Your task to perform on an android device: Open my contact list Image 0: 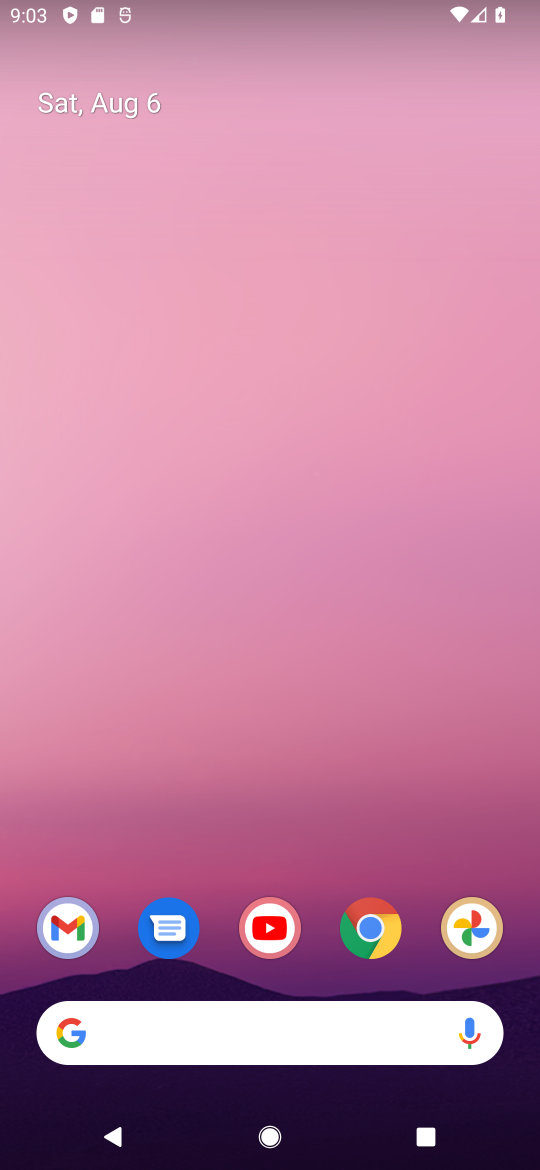
Step 0: click (268, 0)
Your task to perform on an android device: Open my contact list Image 1: 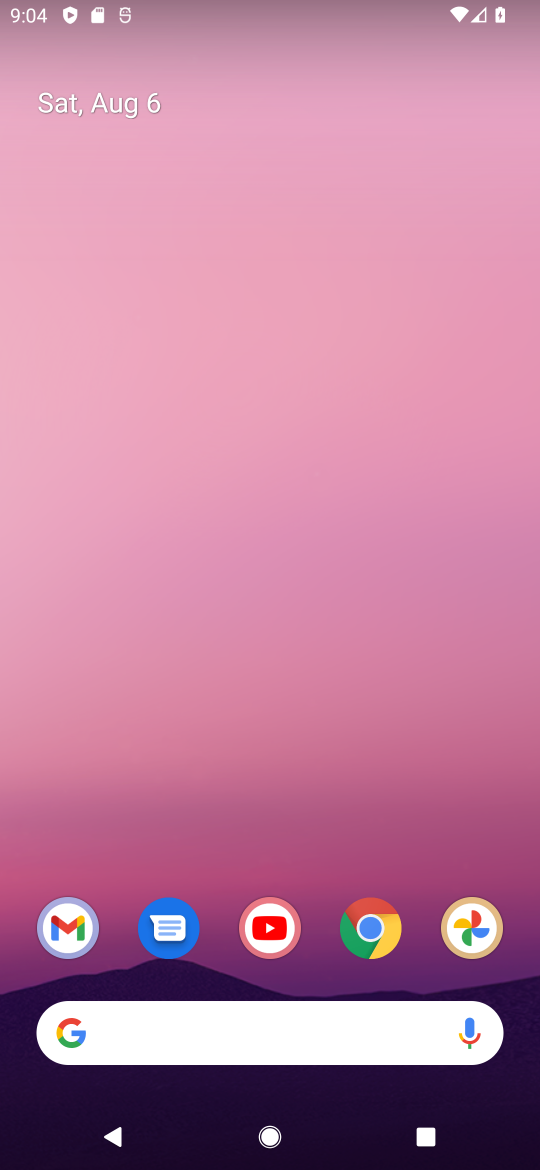
Step 1: drag from (222, 822) to (226, 98)
Your task to perform on an android device: Open my contact list Image 2: 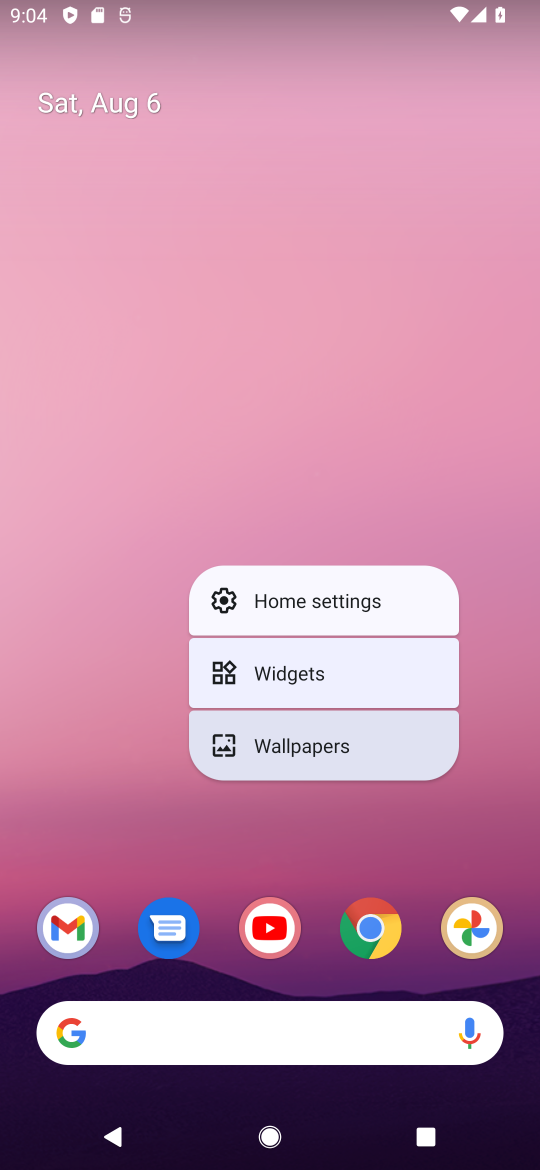
Step 2: click (122, 713)
Your task to perform on an android device: Open my contact list Image 3: 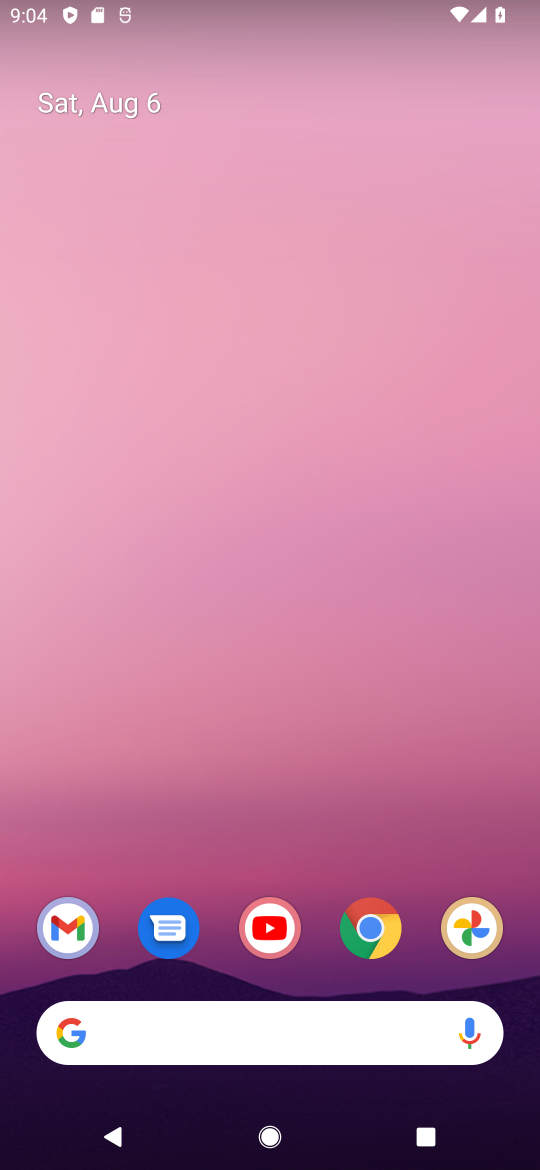
Step 3: drag from (279, 830) to (279, 123)
Your task to perform on an android device: Open my contact list Image 4: 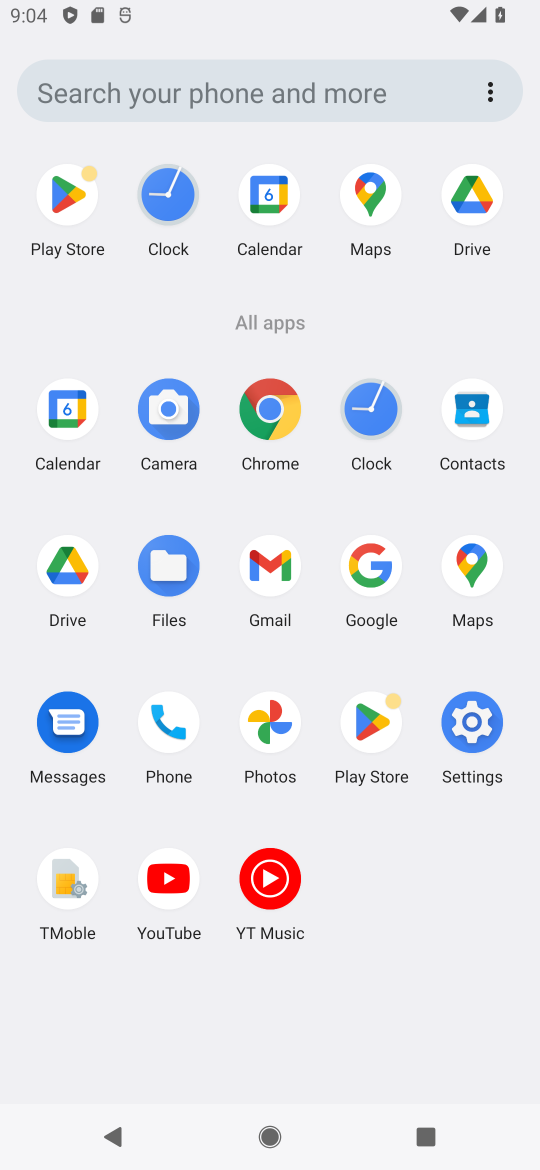
Step 4: click (472, 405)
Your task to perform on an android device: Open my contact list Image 5: 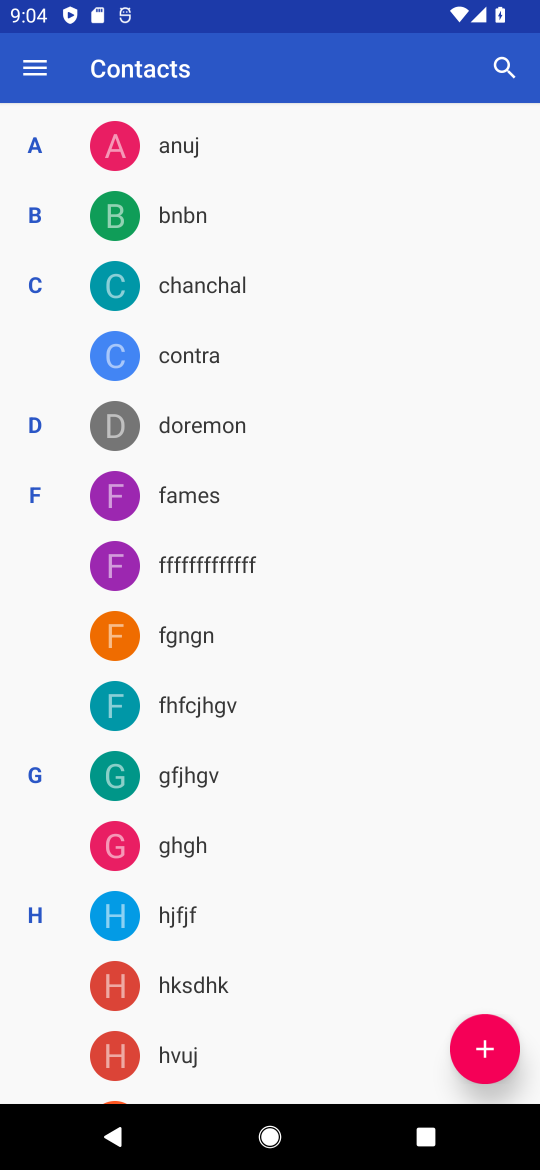
Step 5: task complete